Your task to perform on an android device: What's the weather today? Image 0: 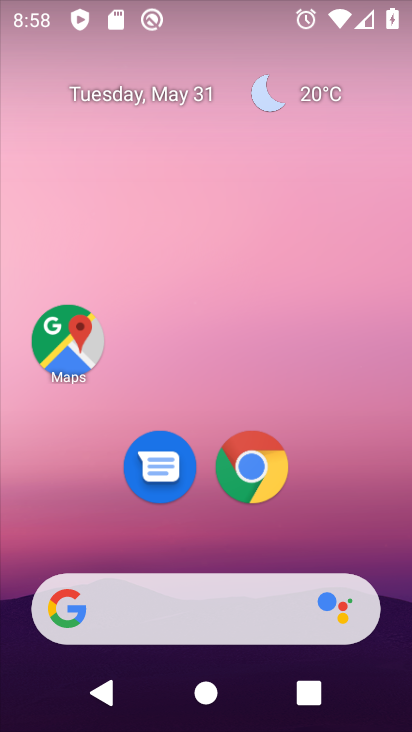
Step 0: drag from (210, 542) to (287, 16)
Your task to perform on an android device: What's the weather today? Image 1: 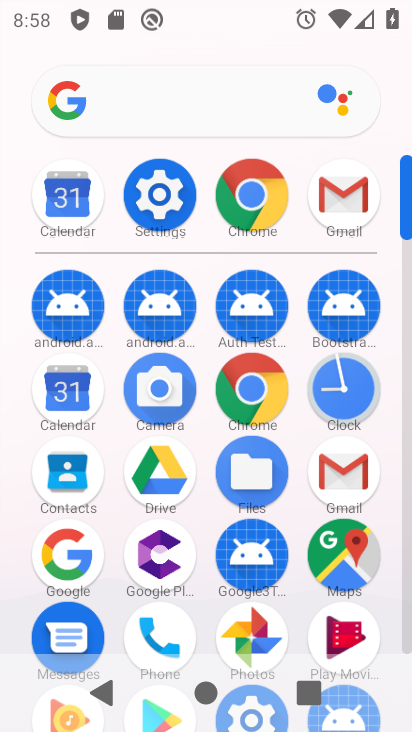
Step 1: click (167, 93)
Your task to perform on an android device: What's the weather today? Image 2: 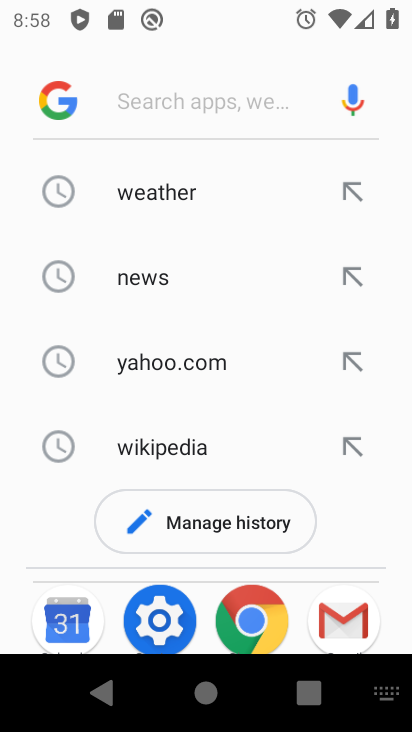
Step 2: click (129, 196)
Your task to perform on an android device: What's the weather today? Image 3: 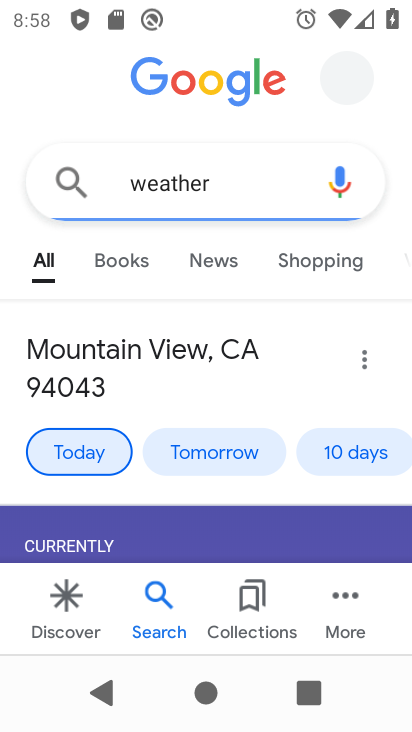
Step 3: drag from (260, 443) to (320, 113)
Your task to perform on an android device: What's the weather today? Image 4: 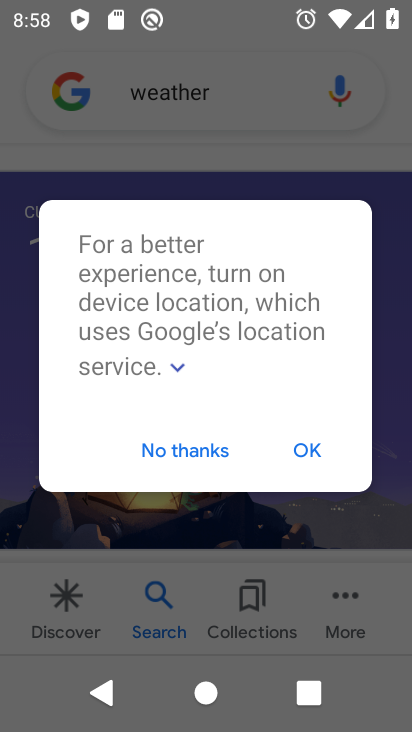
Step 4: click (298, 473)
Your task to perform on an android device: What's the weather today? Image 5: 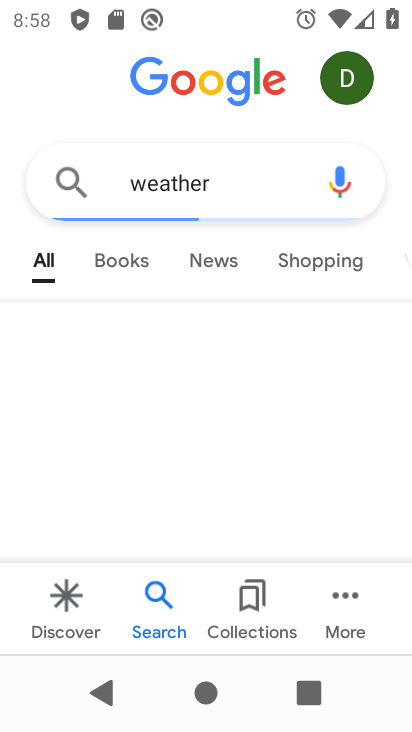
Step 5: task complete